Your task to perform on an android device: see sites visited before in the chrome app Image 0: 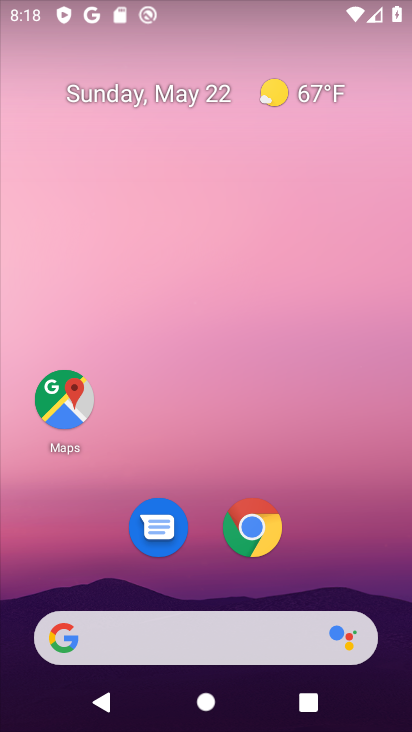
Step 0: press home button
Your task to perform on an android device: see sites visited before in the chrome app Image 1: 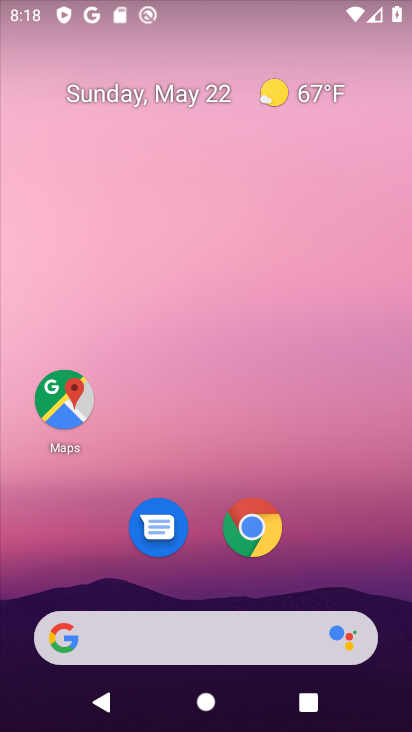
Step 1: click (247, 521)
Your task to perform on an android device: see sites visited before in the chrome app Image 2: 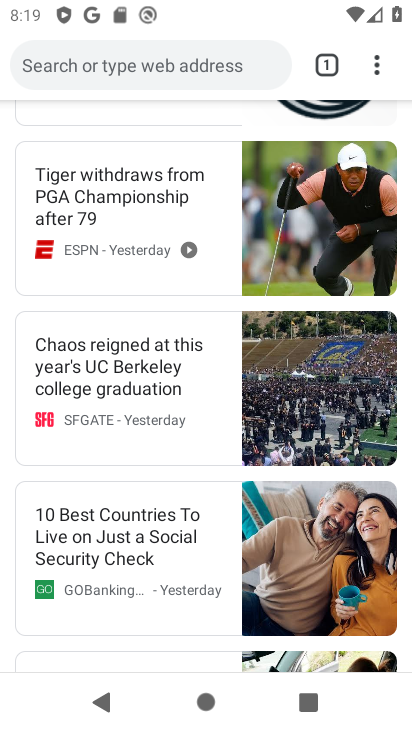
Step 2: click (374, 59)
Your task to perform on an android device: see sites visited before in the chrome app Image 3: 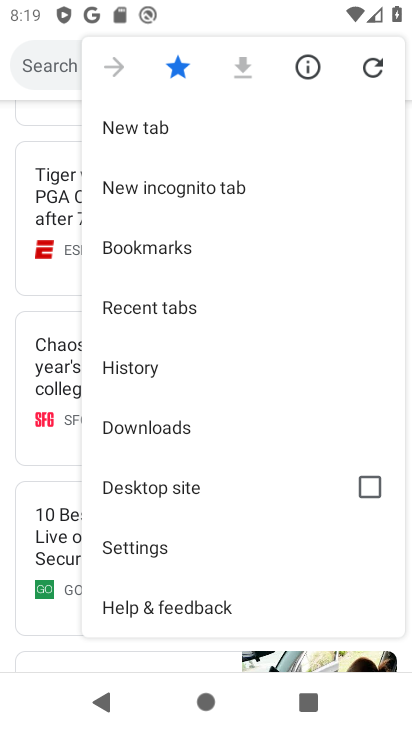
Step 3: click (178, 364)
Your task to perform on an android device: see sites visited before in the chrome app Image 4: 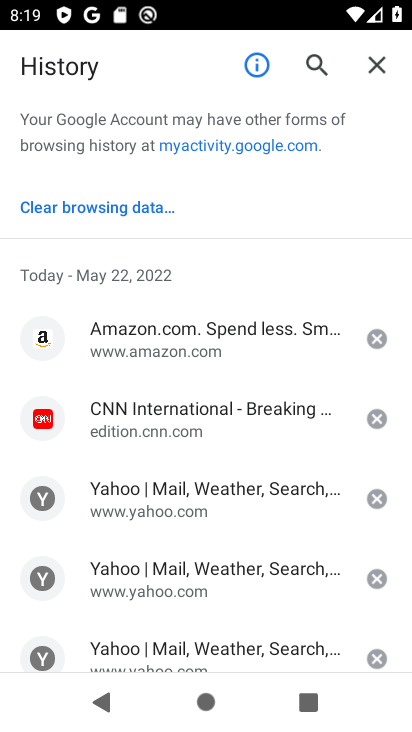
Step 4: task complete